Your task to perform on an android device: turn on notifications settings in the gmail app Image 0: 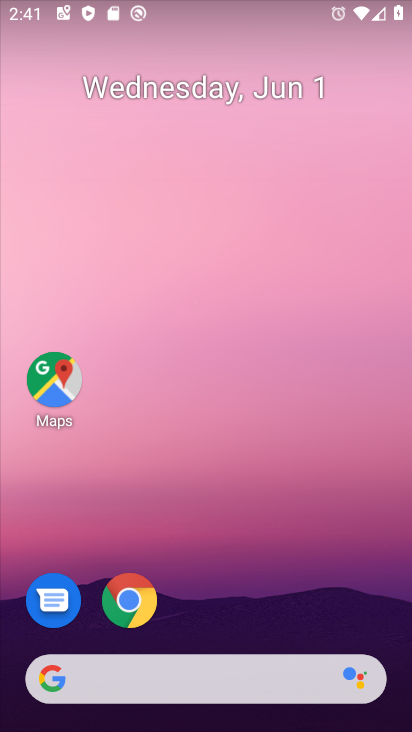
Step 0: drag from (228, 540) to (172, 15)
Your task to perform on an android device: turn on notifications settings in the gmail app Image 1: 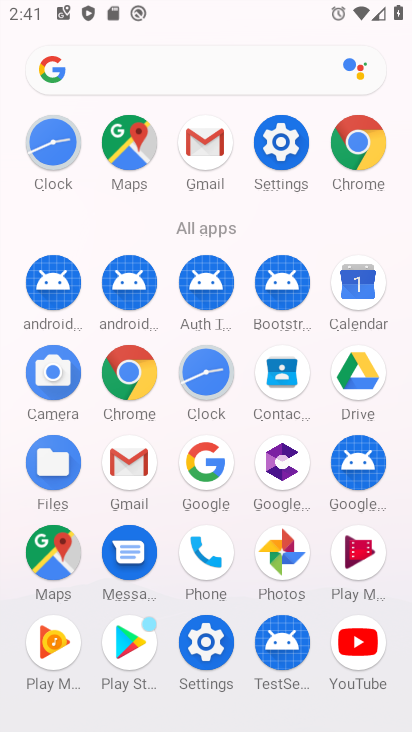
Step 1: drag from (9, 491) to (7, 165)
Your task to perform on an android device: turn on notifications settings in the gmail app Image 2: 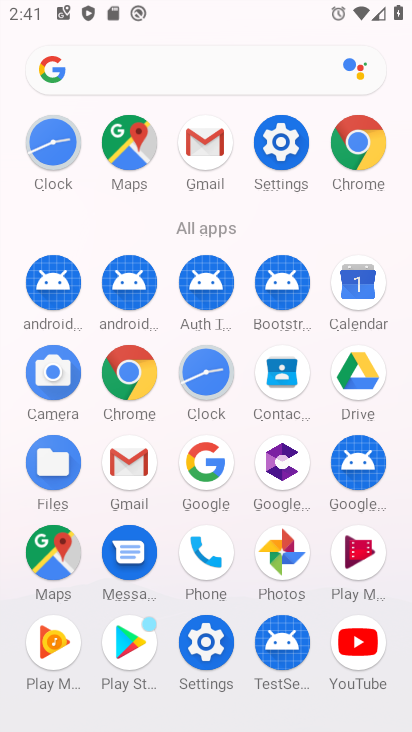
Step 2: click (131, 461)
Your task to perform on an android device: turn on notifications settings in the gmail app Image 3: 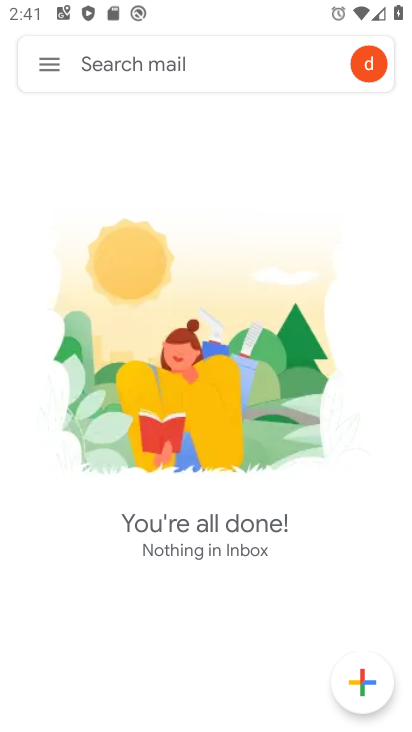
Step 3: click (54, 63)
Your task to perform on an android device: turn on notifications settings in the gmail app Image 4: 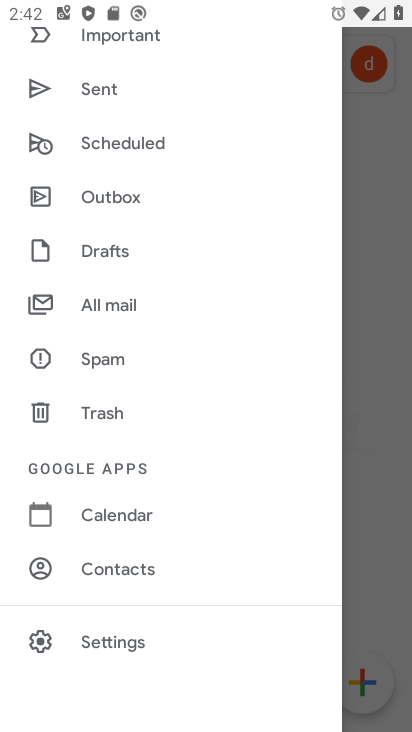
Step 4: click (132, 649)
Your task to perform on an android device: turn on notifications settings in the gmail app Image 5: 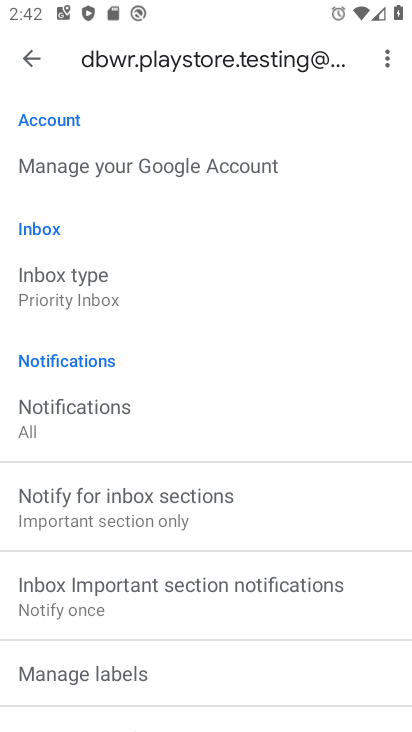
Step 5: drag from (198, 521) to (192, 120)
Your task to perform on an android device: turn on notifications settings in the gmail app Image 6: 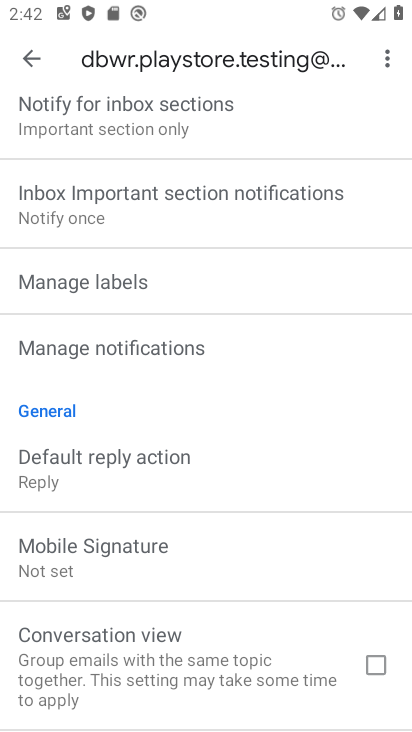
Step 6: click (170, 336)
Your task to perform on an android device: turn on notifications settings in the gmail app Image 7: 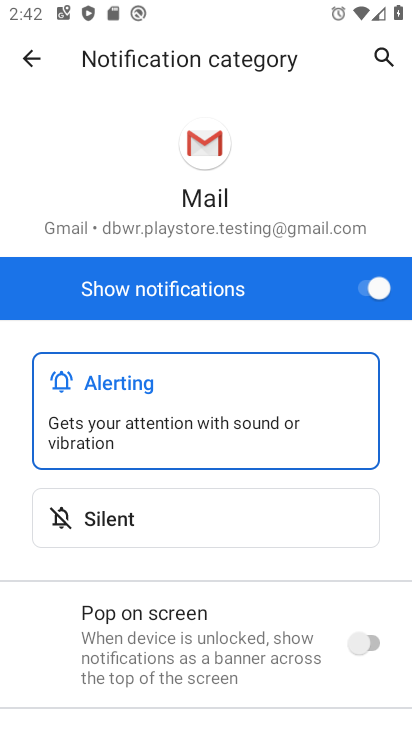
Step 7: task complete